Your task to perform on an android device: Is it going to rain this weekend? Image 0: 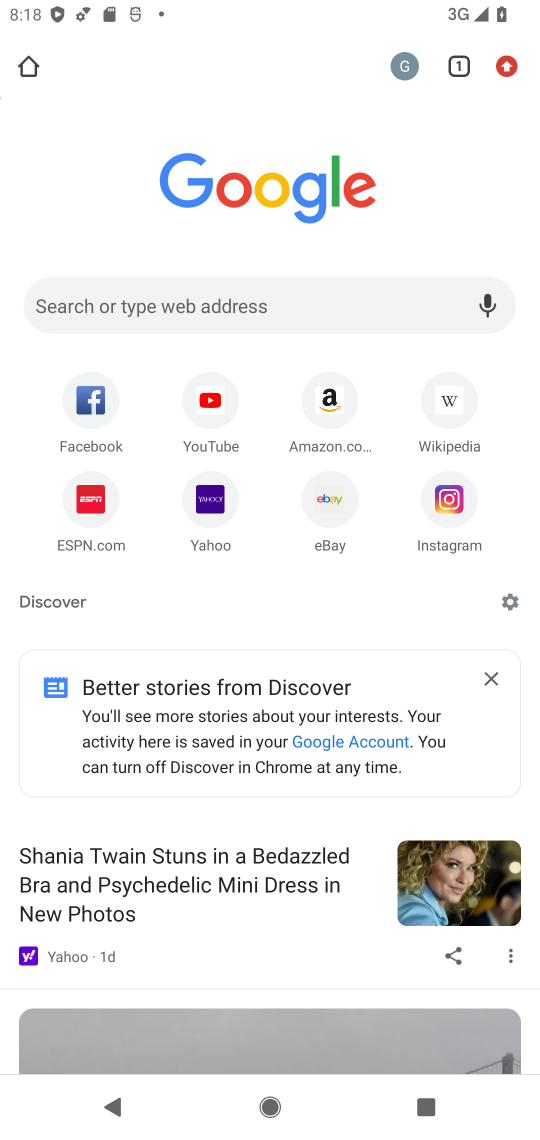
Step 0: press home button
Your task to perform on an android device: Is it going to rain this weekend? Image 1: 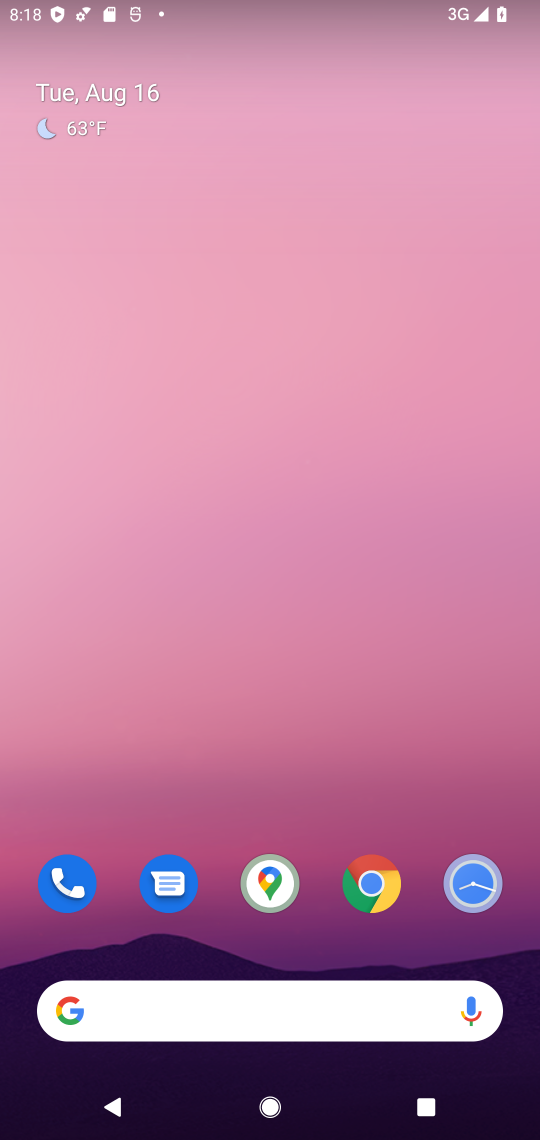
Step 1: click (353, 1021)
Your task to perform on an android device: Is it going to rain this weekend? Image 2: 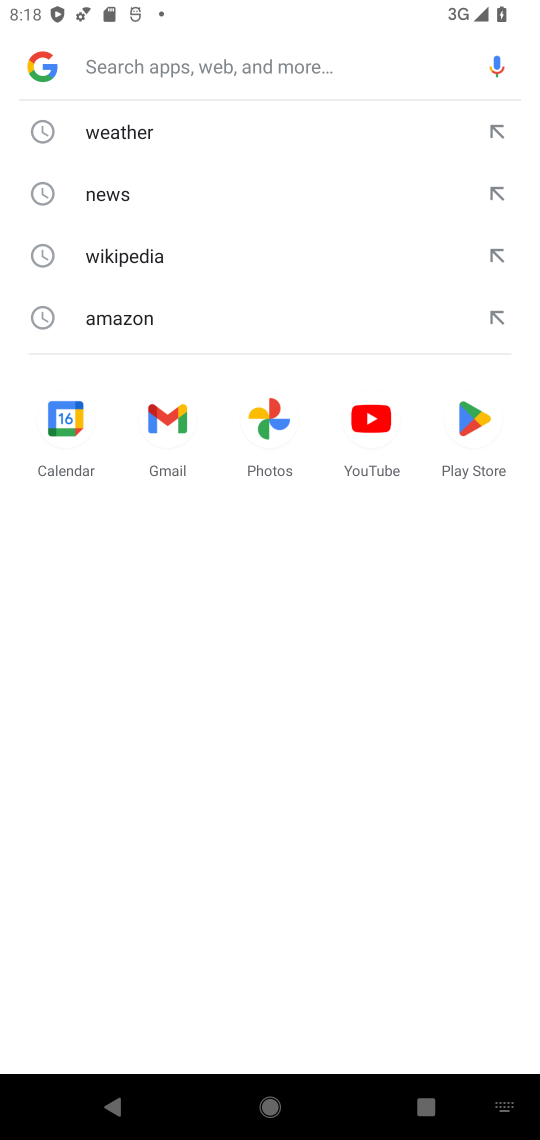
Step 2: click (142, 135)
Your task to perform on an android device: Is it going to rain this weekend? Image 3: 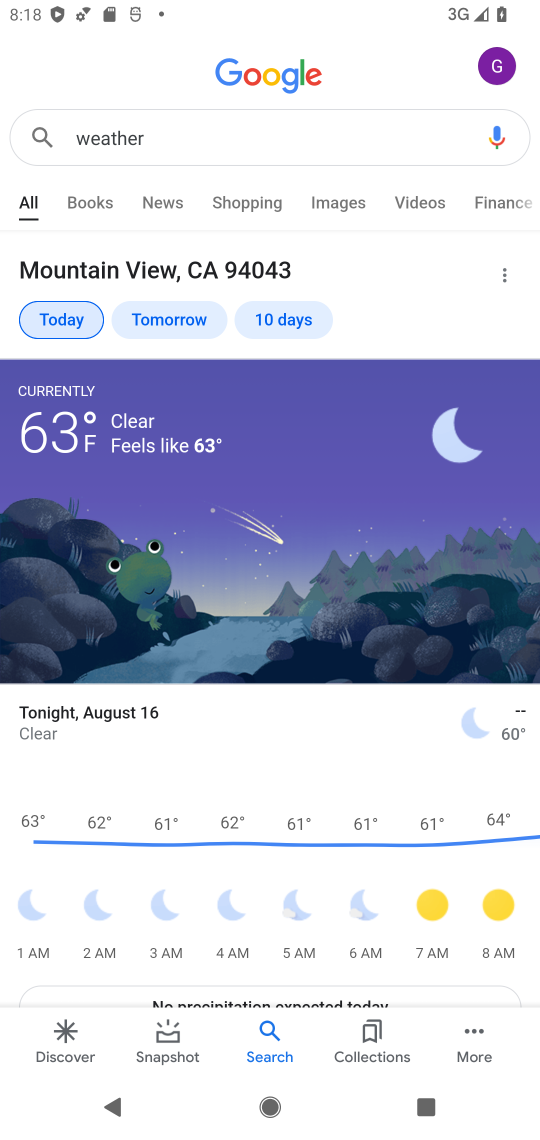
Step 3: click (279, 322)
Your task to perform on an android device: Is it going to rain this weekend? Image 4: 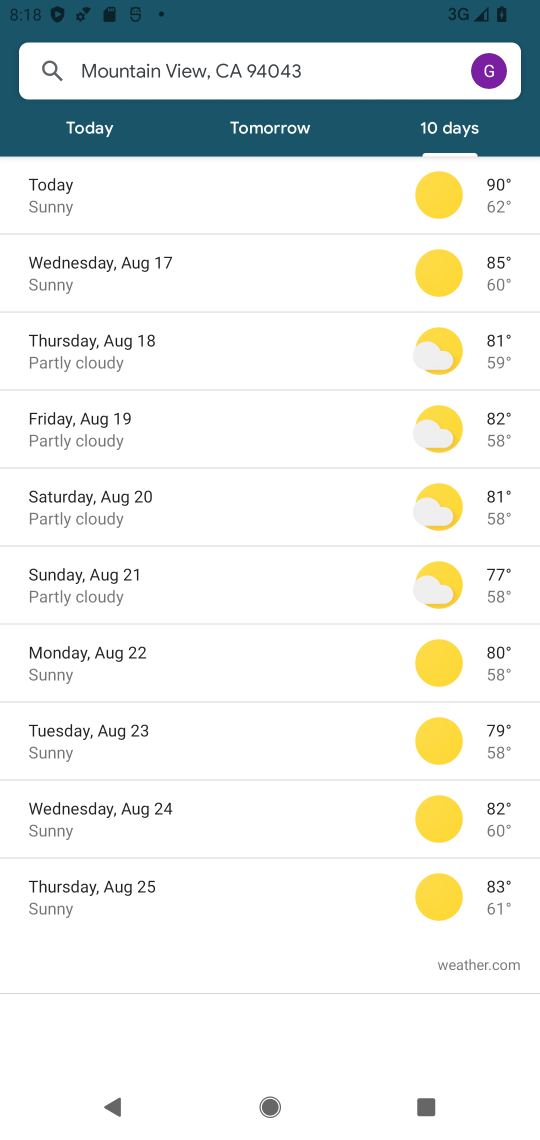
Step 4: click (199, 498)
Your task to perform on an android device: Is it going to rain this weekend? Image 5: 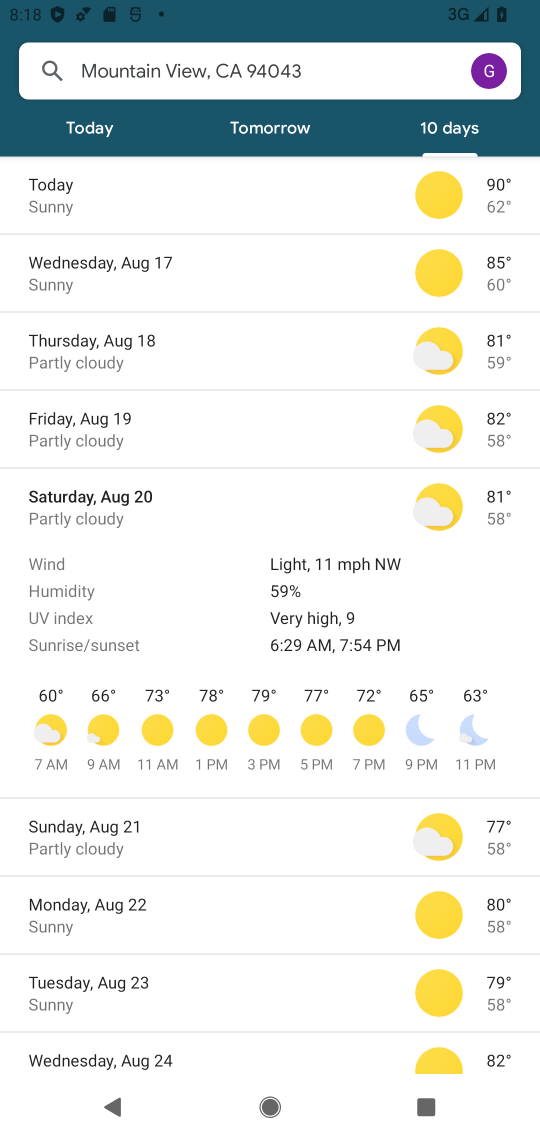
Step 5: task complete